Your task to perform on an android device: Open the calendar and show me this week's events? Image 0: 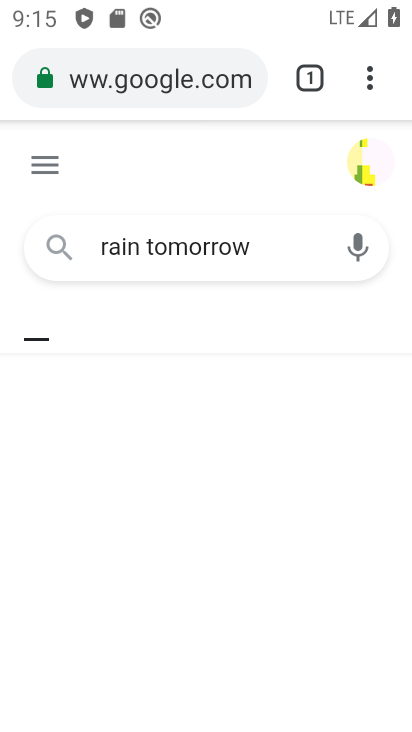
Step 0: drag from (205, 568) to (306, 284)
Your task to perform on an android device: Open the calendar and show me this week's events? Image 1: 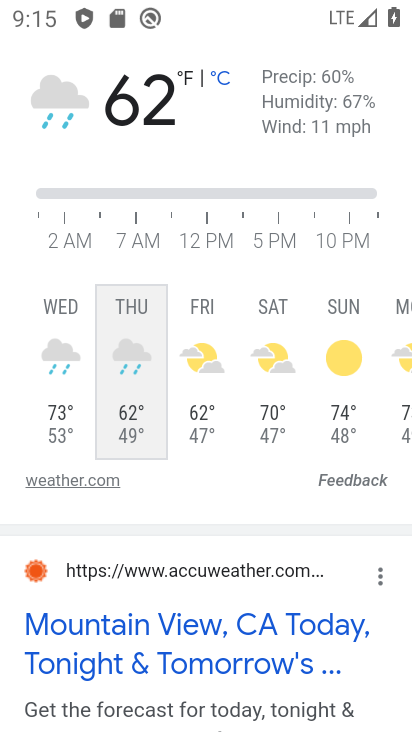
Step 1: drag from (322, 284) to (287, 627)
Your task to perform on an android device: Open the calendar and show me this week's events? Image 2: 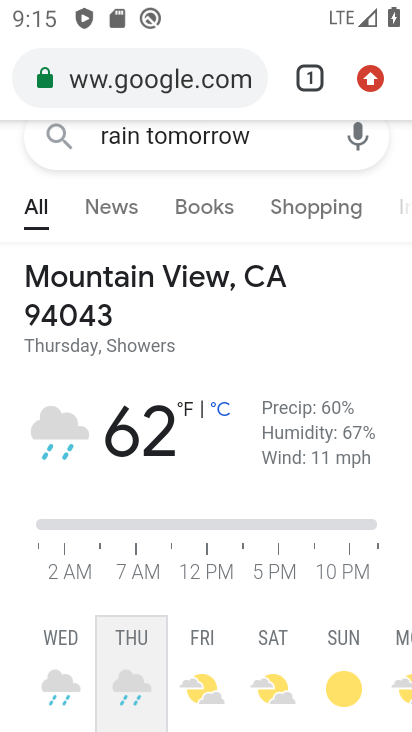
Step 2: press home button
Your task to perform on an android device: Open the calendar and show me this week's events? Image 3: 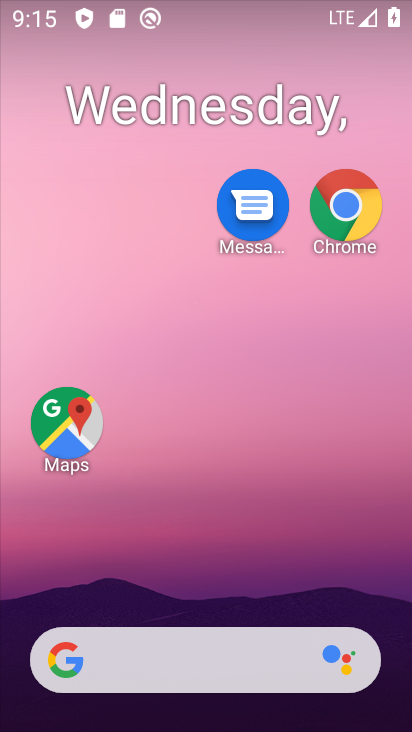
Step 3: drag from (239, 629) to (322, 0)
Your task to perform on an android device: Open the calendar and show me this week's events? Image 4: 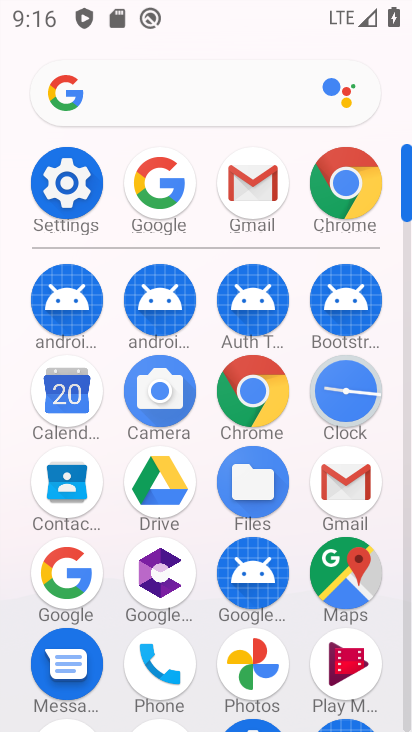
Step 4: click (67, 401)
Your task to perform on an android device: Open the calendar and show me this week's events? Image 5: 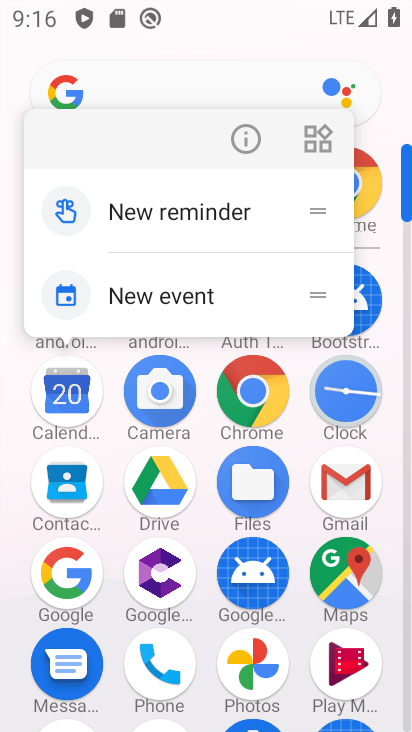
Step 5: click (245, 122)
Your task to perform on an android device: Open the calendar and show me this week's events? Image 6: 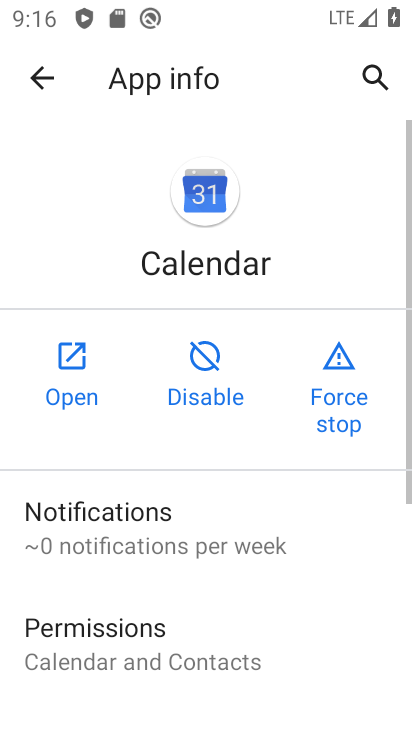
Step 6: click (83, 370)
Your task to perform on an android device: Open the calendar and show me this week's events? Image 7: 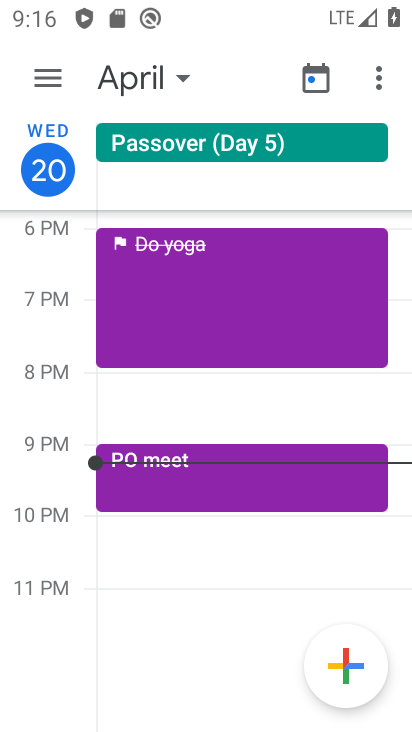
Step 7: click (53, 82)
Your task to perform on an android device: Open the calendar and show me this week's events? Image 8: 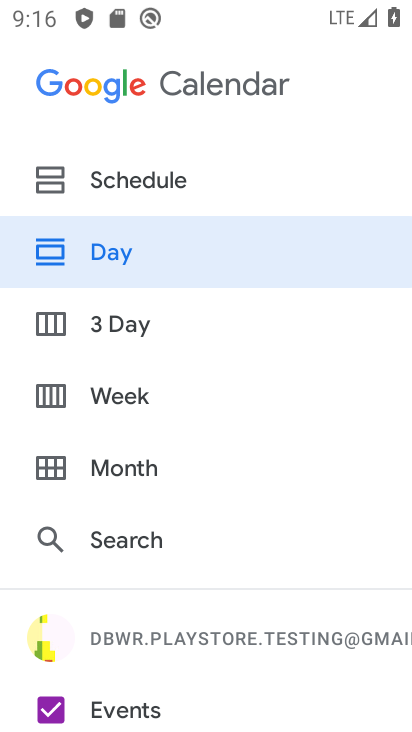
Step 8: drag from (131, 466) to (281, 107)
Your task to perform on an android device: Open the calendar and show me this week's events? Image 9: 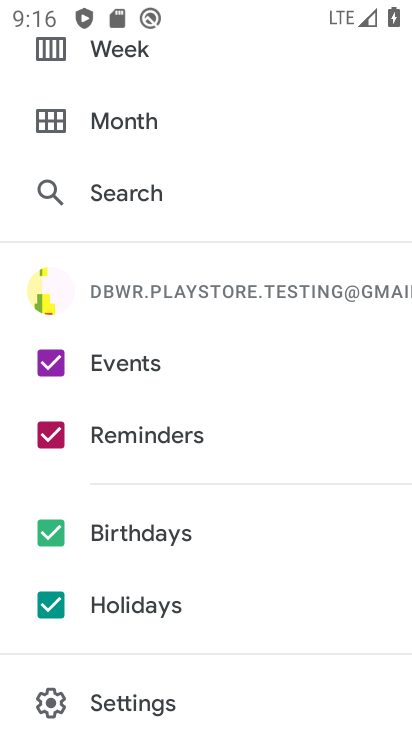
Step 9: click (56, 603)
Your task to perform on an android device: Open the calendar and show me this week's events? Image 10: 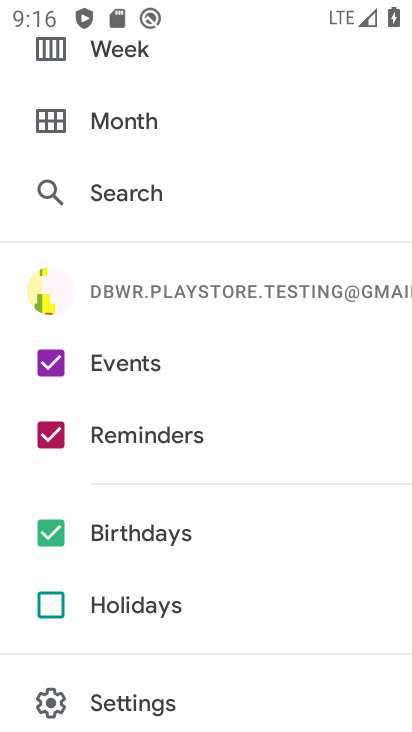
Step 10: click (53, 543)
Your task to perform on an android device: Open the calendar and show me this week's events? Image 11: 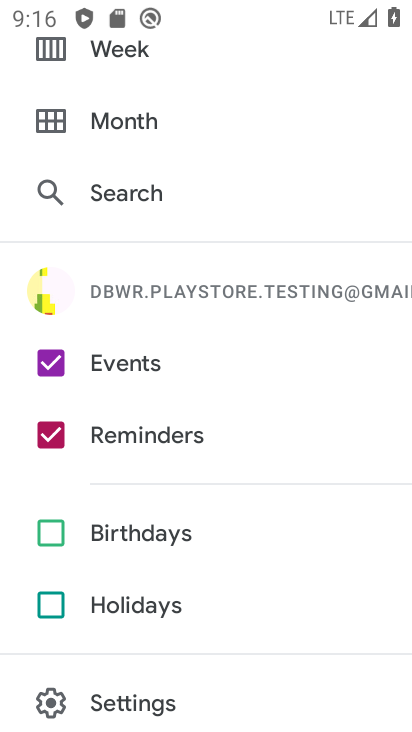
Step 11: click (44, 428)
Your task to perform on an android device: Open the calendar and show me this week's events? Image 12: 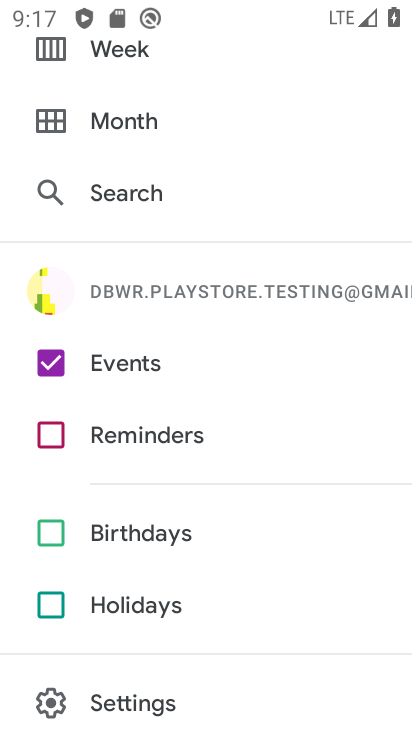
Step 12: task complete